Your task to perform on an android device: Search for pizza restaurants on Maps Image 0: 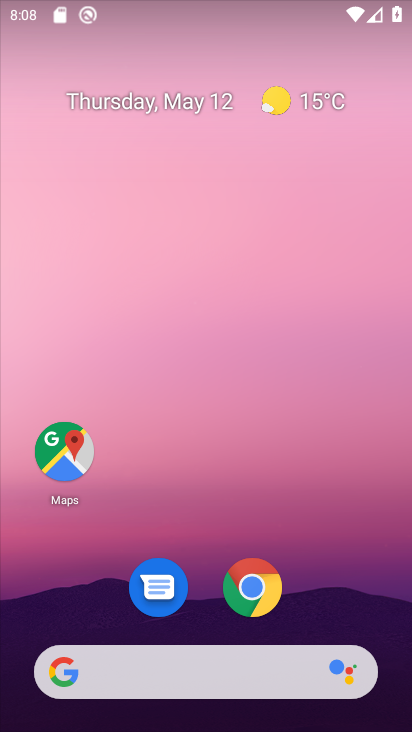
Step 0: drag from (350, 613) to (295, 53)
Your task to perform on an android device: Search for pizza restaurants on Maps Image 1: 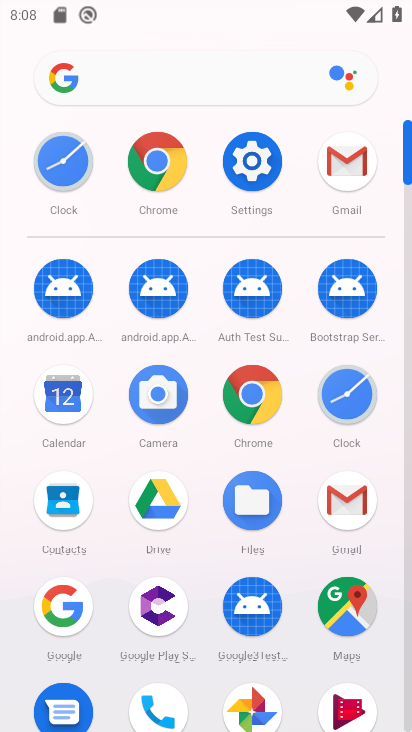
Step 1: click (339, 618)
Your task to perform on an android device: Search for pizza restaurants on Maps Image 2: 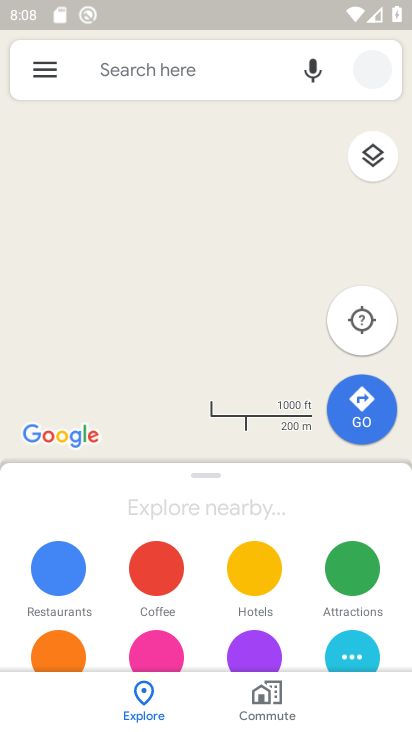
Step 2: click (168, 61)
Your task to perform on an android device: Search for pizza restaurants on Maps Image 3: 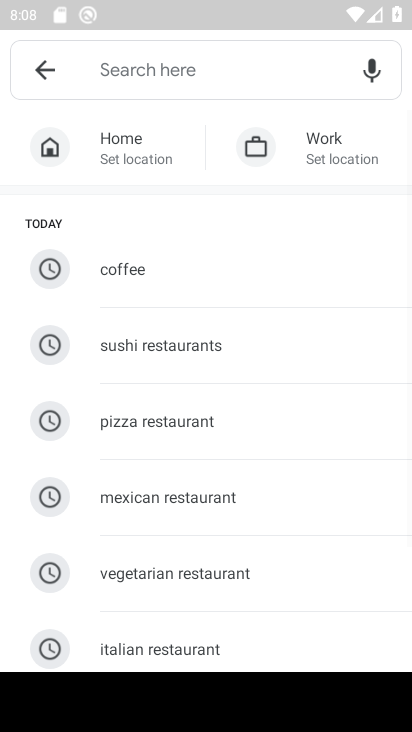
Step 3: click (202, 443)
Your task to perform on an android device: Search for pizza restaurants on Maps Image 4: 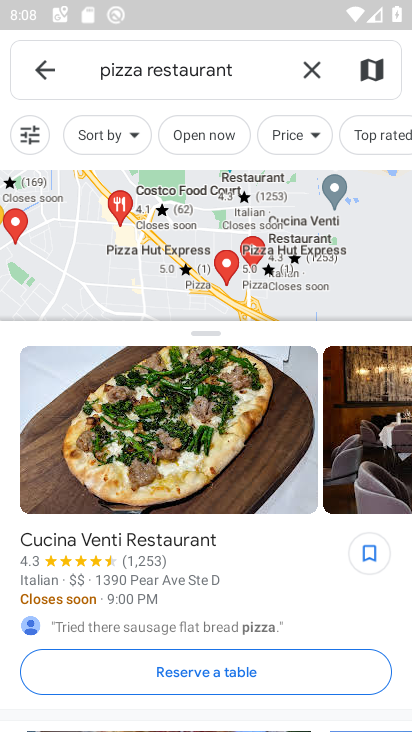
Step 4: task complete